Your task to perform on an android device: set the timer Image 0: 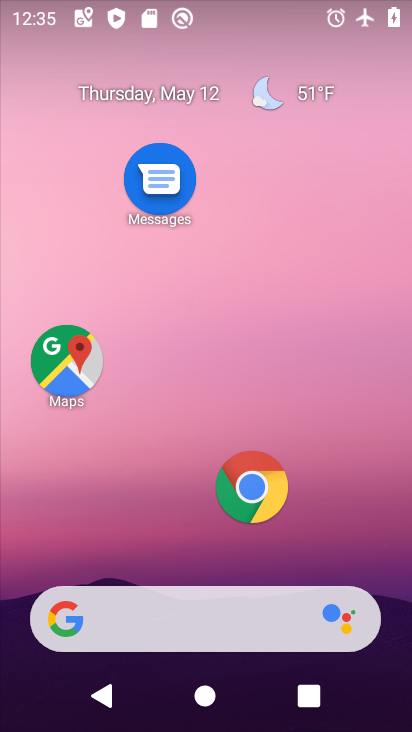
Step 0: drag from (202, 565) to (197, 28)
Your task to perform on an android device: set the timer Image 1: 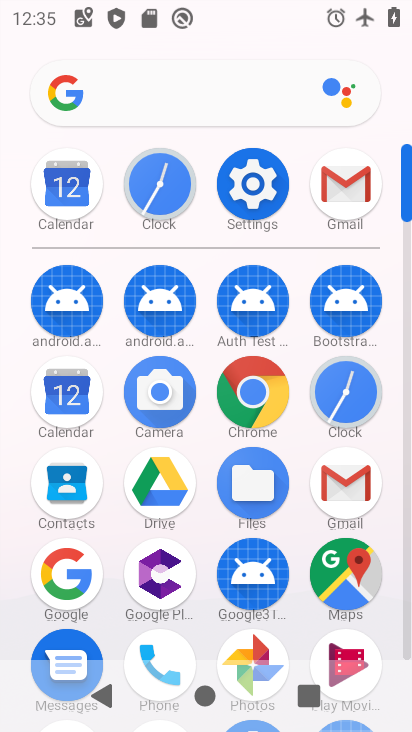
Step 1: click (135, 188)
Your task to perform on an android device: set the timer Image 2: 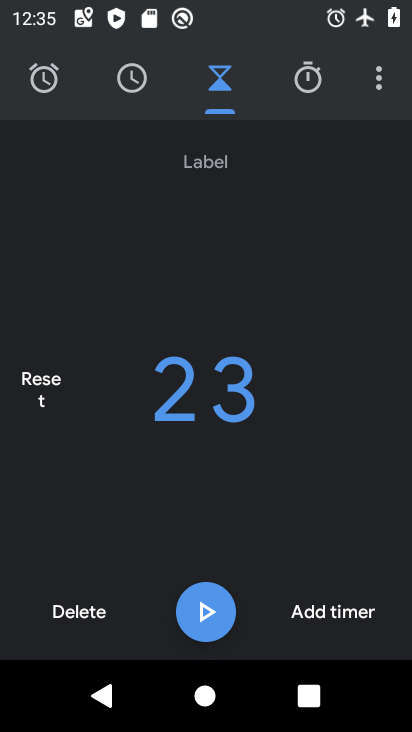
Step 2: click (199, 594)
Your task to perform on an android device: set the timer Image 3: 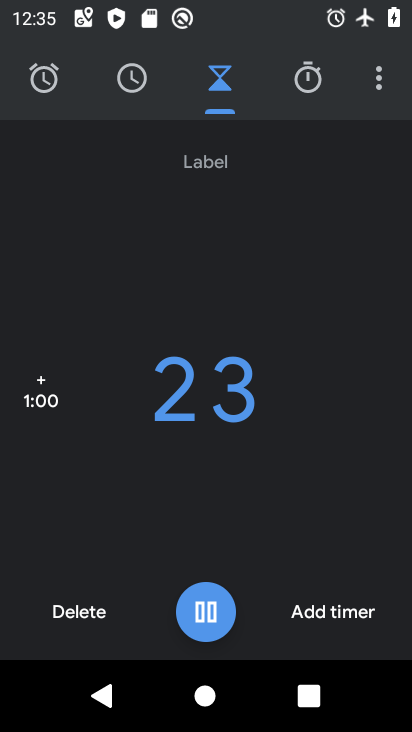
Step 3: task complete